Your task to perform on an android device: Do I have any events this weekend? Image 0: 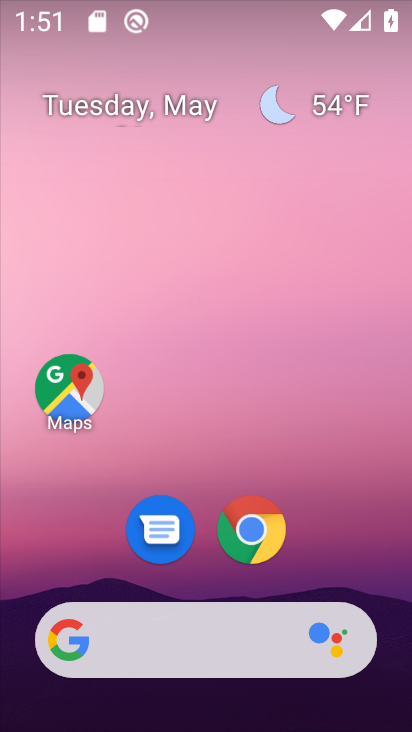
Step 0: drag from (326, 554) to (299, 257)
Your task to perform on an android device: Do I have any events this weekend? Image 1: 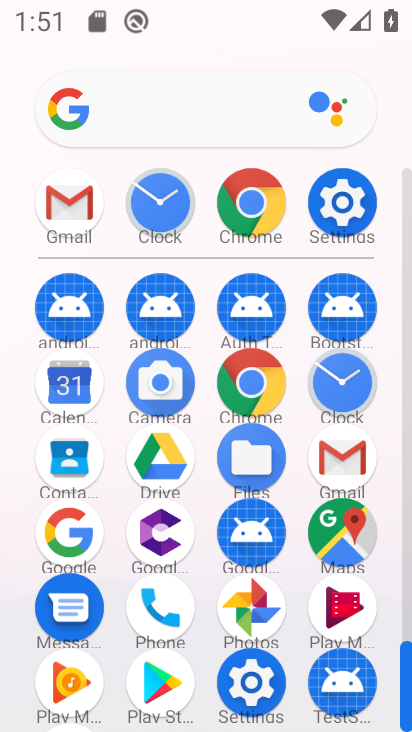
Step 1: click (61, 379)
Your task to perform on an android device: Do I have any events this weekend? Image 2: 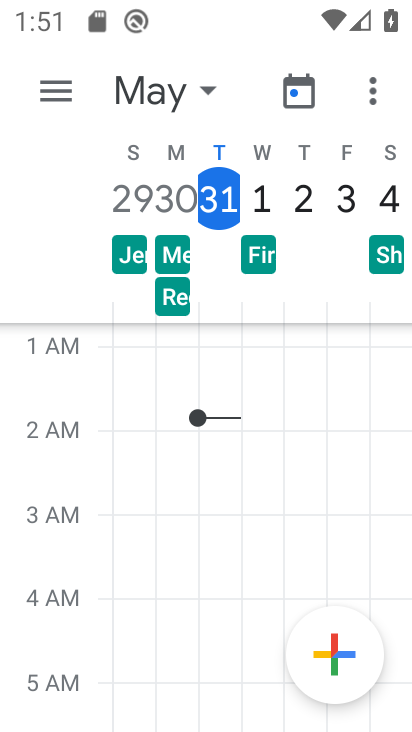
Step 2: click (59, 74)
Your task to perform on an android device: Do I have any events this weekend? Image 3: 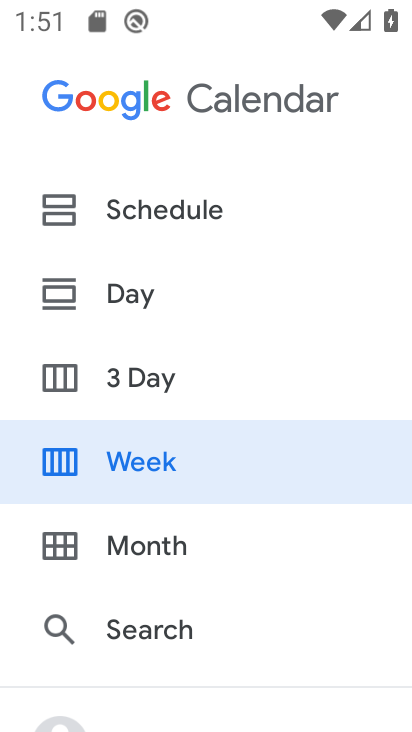
Step 3: click (142, 476)
Your task to perform on an android device: Do I have any events this weekend? Image 4: 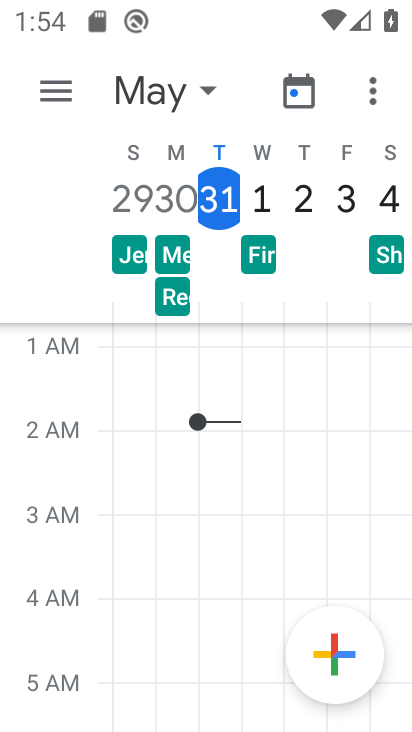
Step 4: task complete